Your task to perform on an android device: all mails in gmail Image 0: 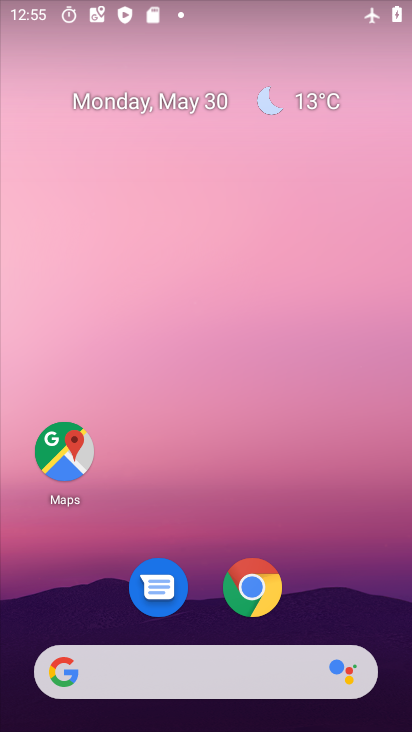
Step 0: drag from (349, 516) to (324, 3)
Your task to perform on an android device: all mails in gmail Image 1: 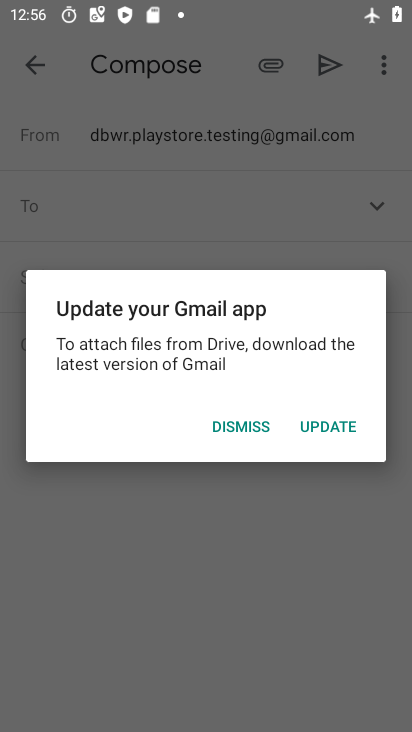
Step 1: click (345, 175)
Your task to perform on an android device: all mails in gmail Image 2: 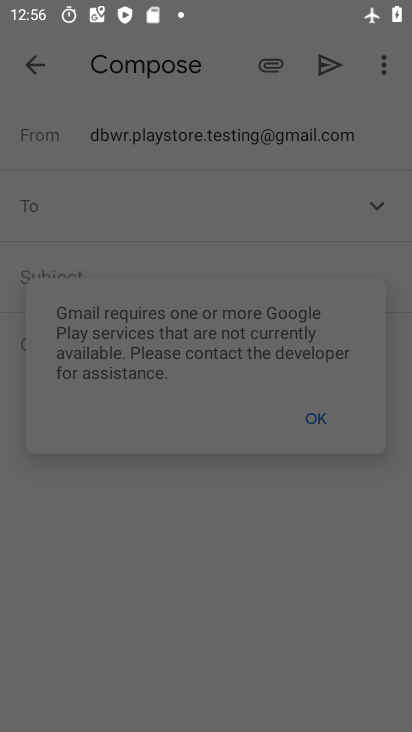
Step 2: press back button
Your task to perform on an android device: all mails in gmail Image 3: 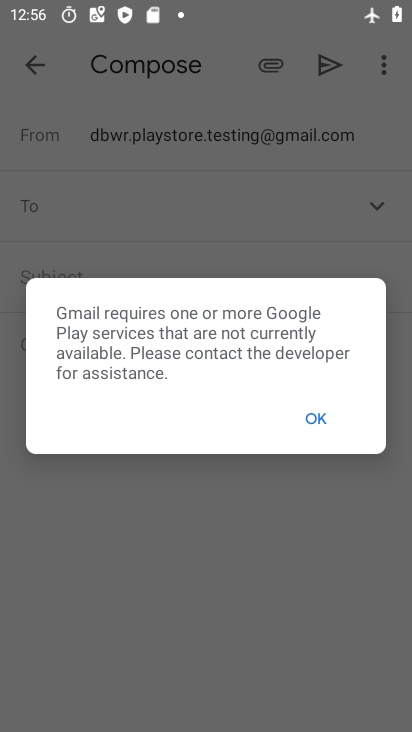
Step 3: press back button
Your task to perform on an android device: all mails in gmail Image 4: 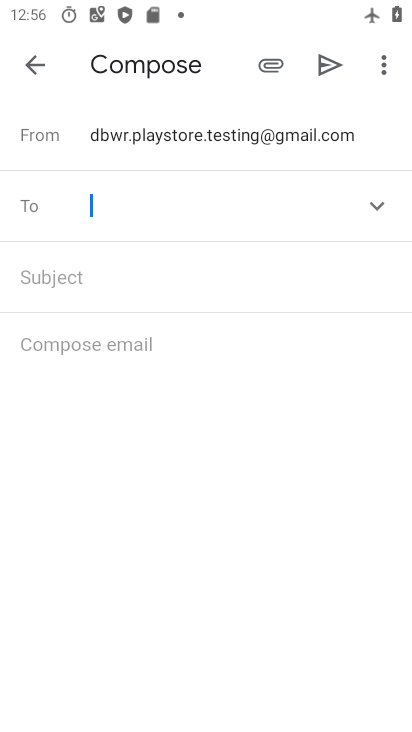
Step 4: press back button
Your task to perform on an android device: all mails in gmail Image 5: 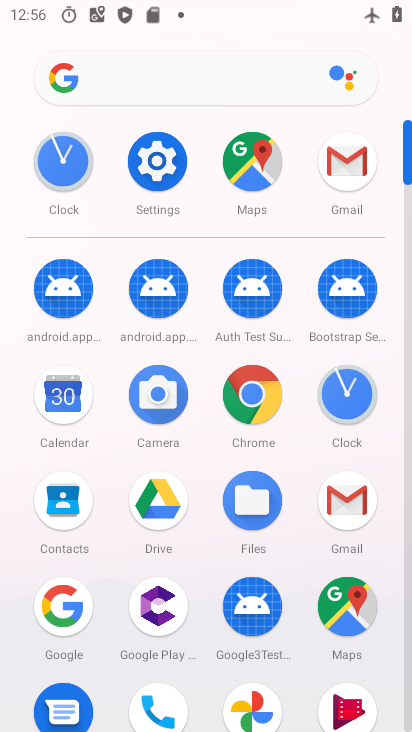
Step 5: click (347, 163)
Your task to perform on an android device: all mails in gmail Image 6: 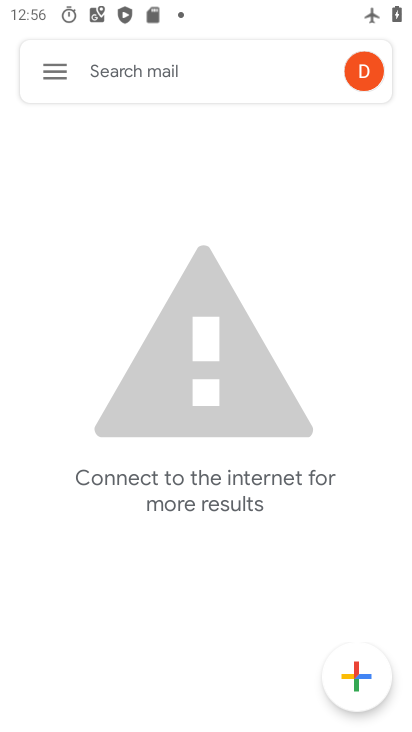
Step 6: click (56, 73)
Your task to perform on an android device: all mails in gmail Image 7: 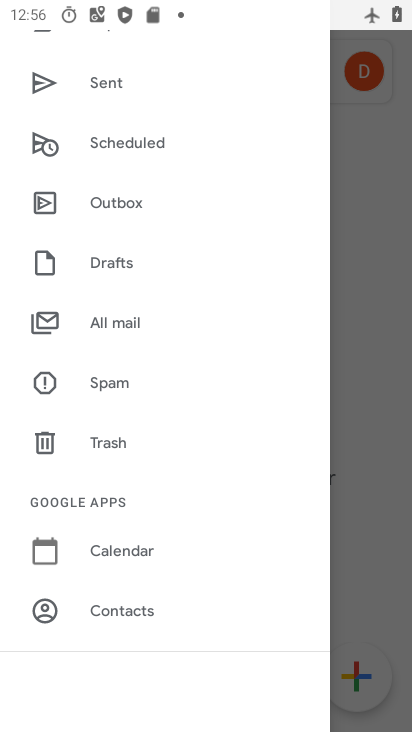
Step 7: click (103, 336)
Your task to perform on an android device: all mails in gmail Image 8: 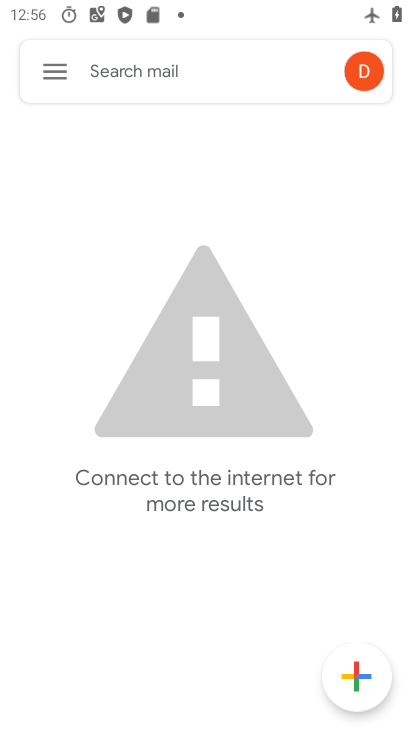
Step 8: task complete